Your task to perform on an android device: Search for sushi restaurants on Maps Image 0: 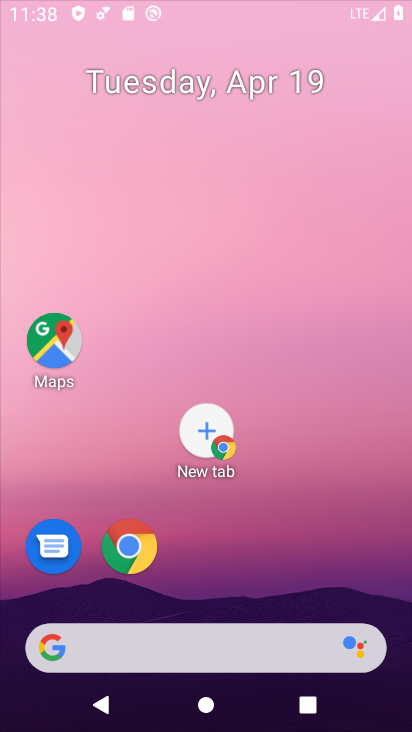
Step 0: click (128, 538)
Your task to perform on an android device: Search for sushi restaurants on Maps Image 1: 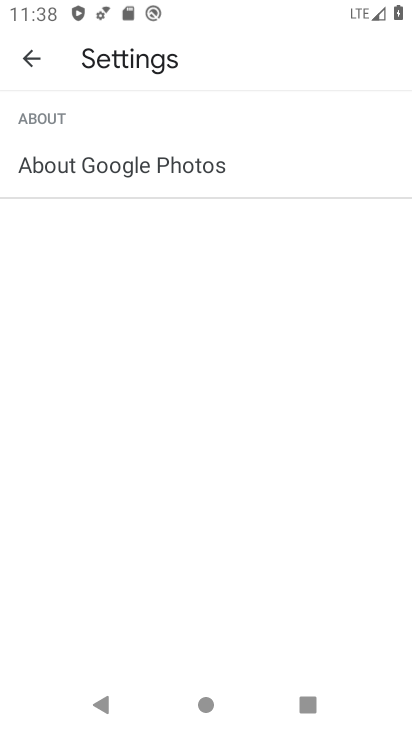
Step 1: press home button
Your task to perform on an android device: Search for sushi restaurants on Maps Image 2: 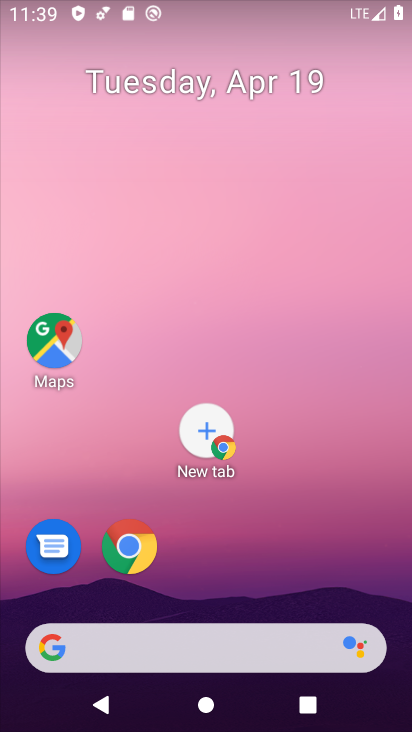
Step 2: click (129, 551)
Your task to perform on an android device: Search for sushi restaurants on Maps Image 3: 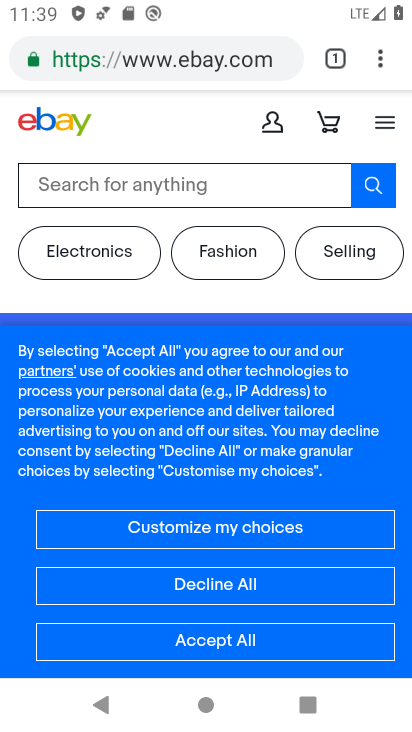
Step 3: click (275, 73)
Your task to perform on an android device: Search for sushi restaurants on Maps Image 4: 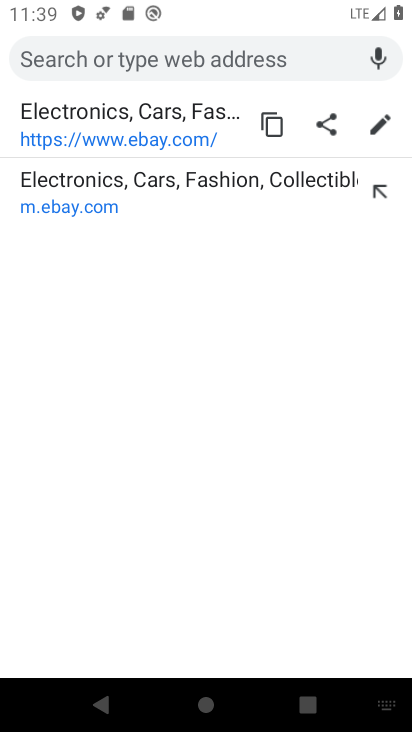
Step 4: type "sushi restaurant"
Your task to perform on an android device: Search for sushi restaurants on Maps Image 5: 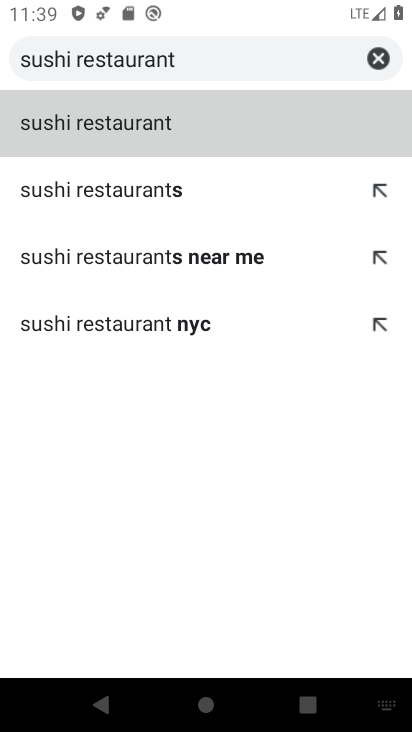
Step 5: click (329, 208)
Your task to perform on an android device: Search for sushi restaurants on Maps Image 6: 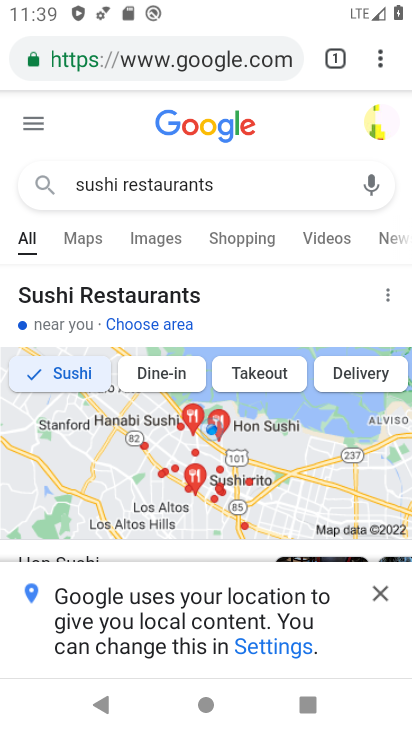
Step 6: task complete